Your task to perform on an android device: View the shopping cart on bestbuy. Add "razer kraken" to the cart on bestbuy Image 0: 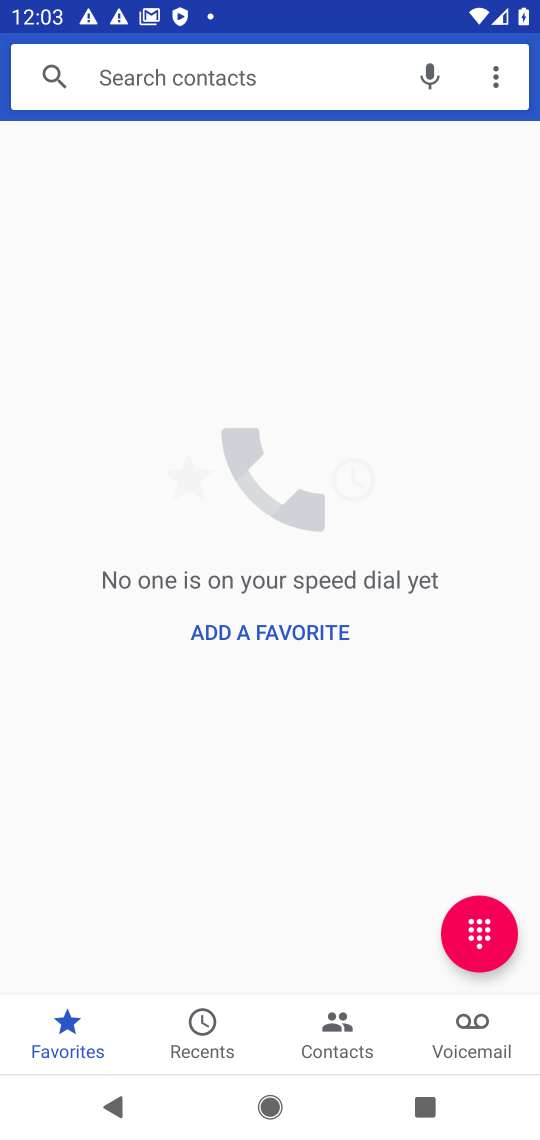
Step 0: press home button
Your task to perform on an android device: View the shopping cart on bestbuy. Add "razer kraken" to the cart on bestbuy Image 1: 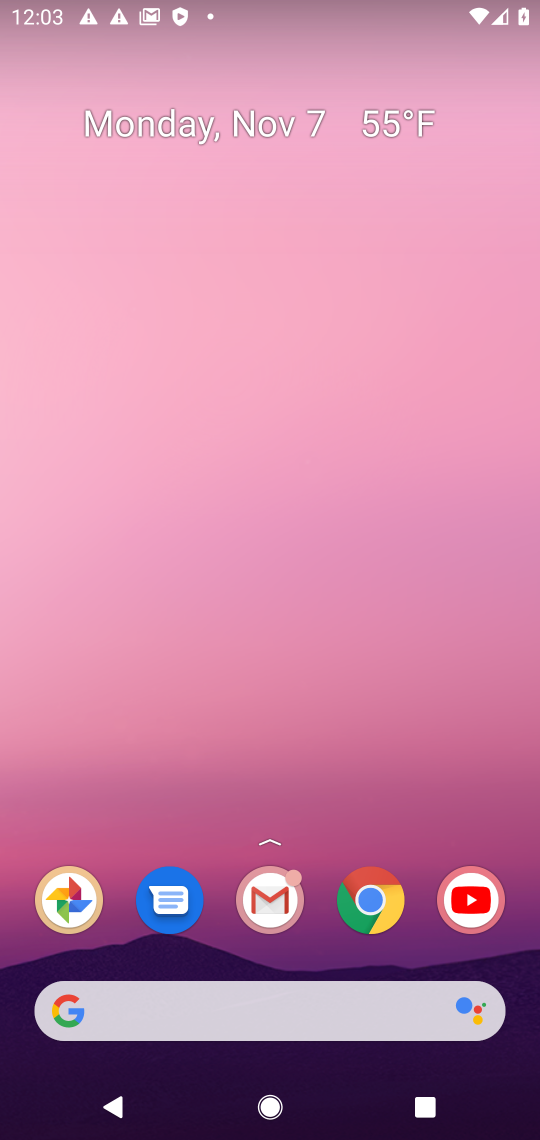
Step 1: click (174, 1011)
Your task to perform on an android device: View the shopping cart on bestbuy. Add "razer kraken" to the cart on bestbuy Image 2: 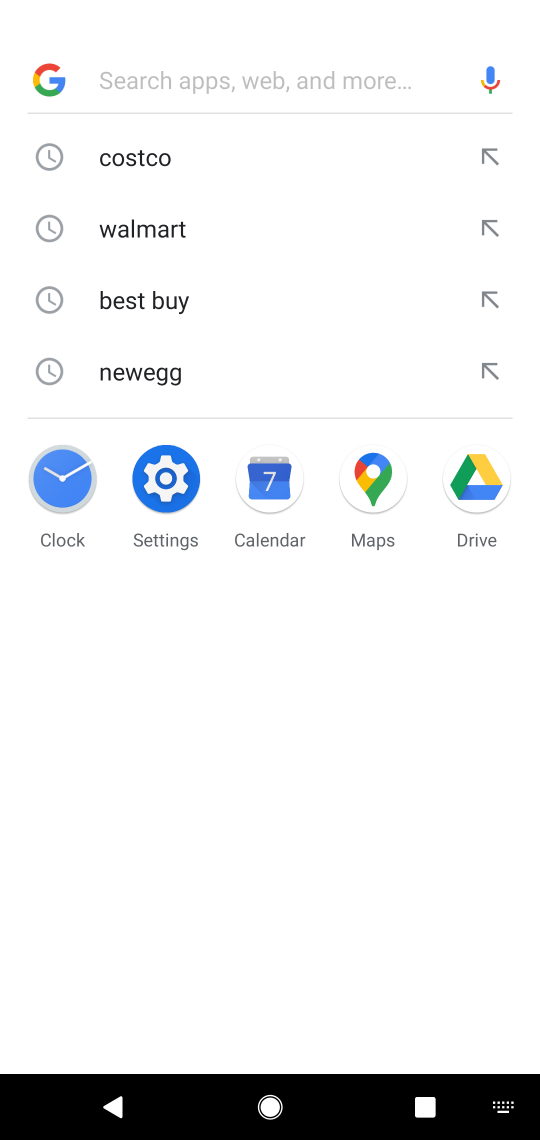
Step 2: click (387, 321)
Your task to perform on an android device: View the shopping cart on bestbuy. Add "razer kraken" to the cart on bestbuy Image 3: 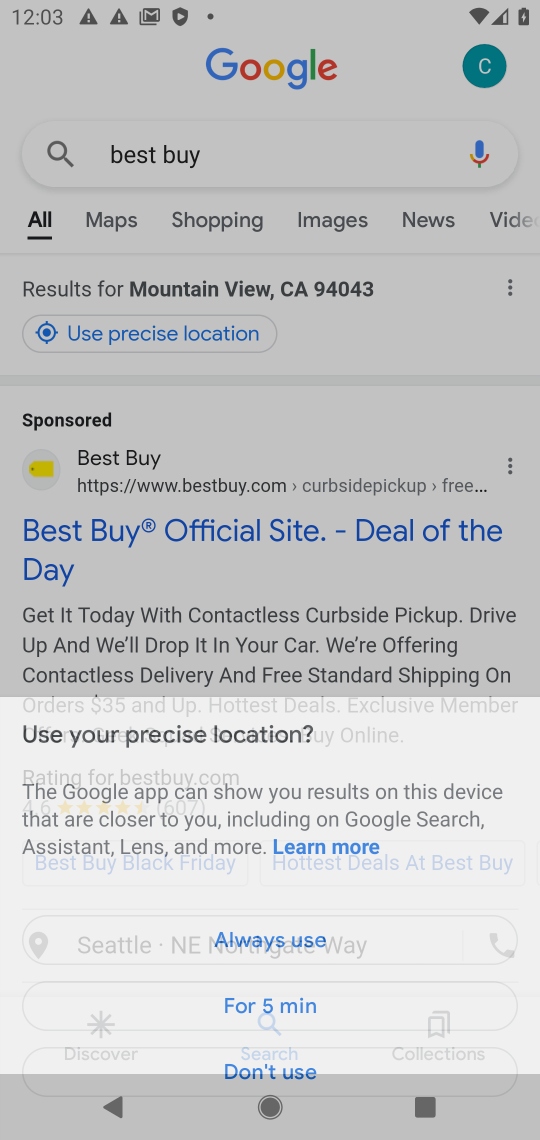
Step 3: click (92, 538)
Your task to perform on an android device: View the shopping cart on bestbuy. Add "razer kraken" to the cart on bestbuy Image 4: 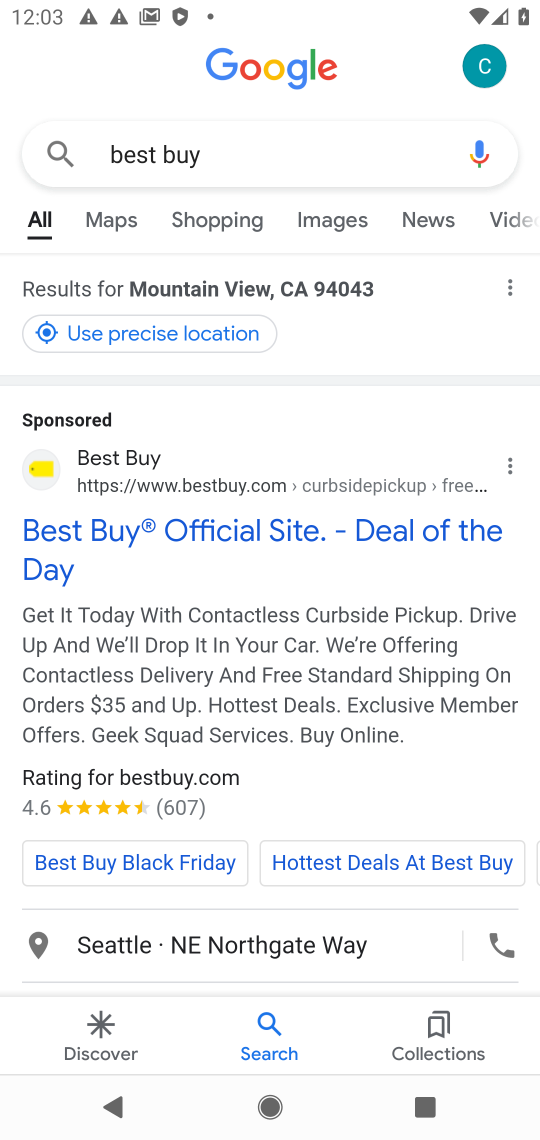
Step 4: click (126, 533)
Your task to perform on an android device: View the shopping cart on bestbuy. Add "razer kraken" to the cart on bestbuy Image 5: 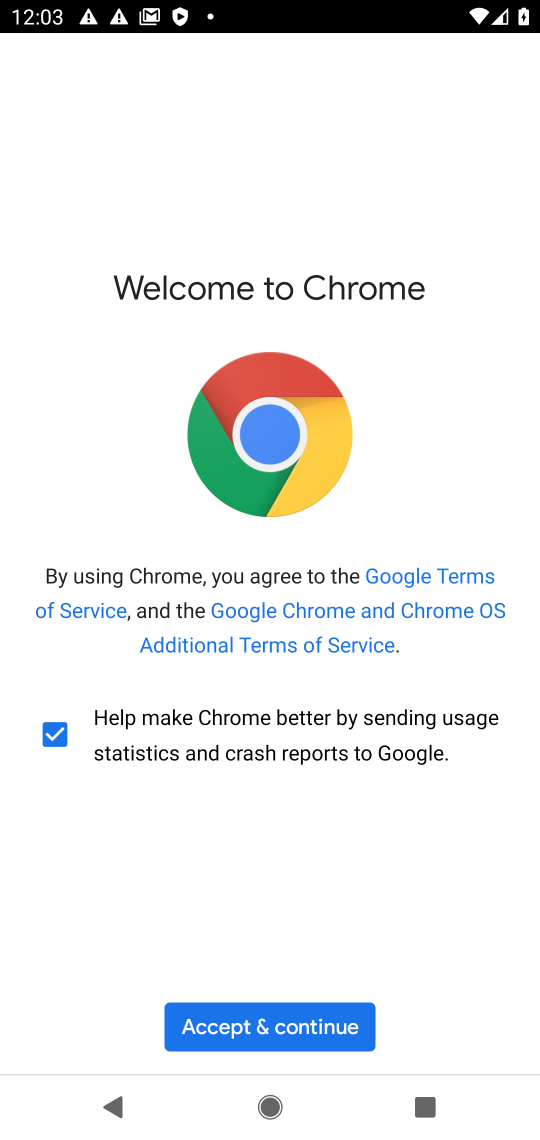
Step 5: click (274, 1014)
Your task to perform on an android device: View the shopping cart on bestbuy. Add "razer kraken" to the cart on bestbuy Image 6: 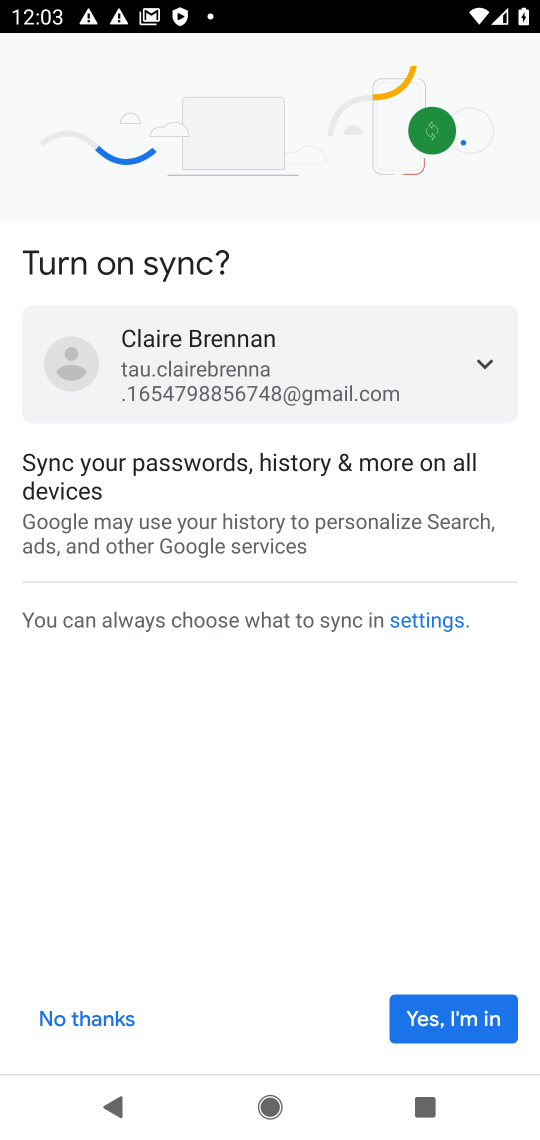
Step 6: click (479, 1044)
Your task to perform on an android device: View the shopping cart on bestbuy. Add "razer kraken" to the cart on bestbuy Image 7: 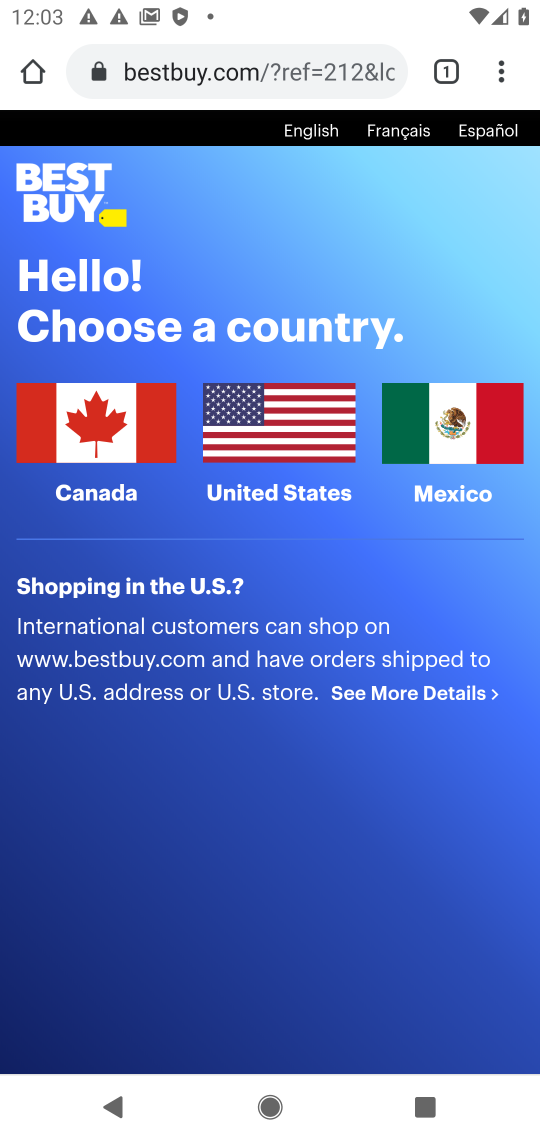
Step 7: click (128, 578)
Your task to perform on an android device: View the shopping cart on bestbuy. Add "razer kraken" to the cart on bestbuy Image 8: 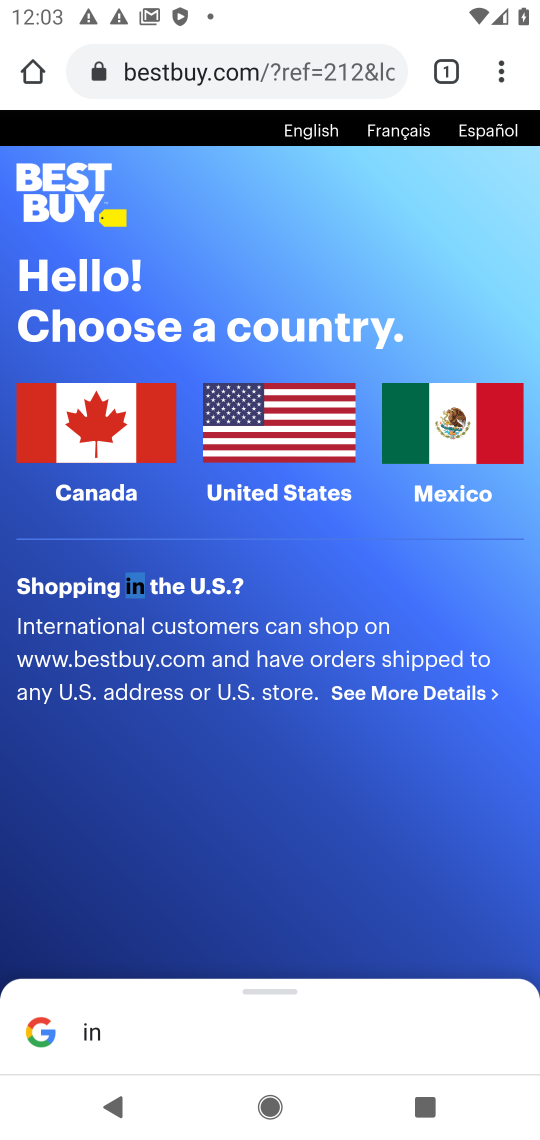
Step 8: click (84, 435)
Your task to perform on an android device: View the shopping cart on bestbuy. Add "razer kraken" to the cart on bestbuy Image 9: 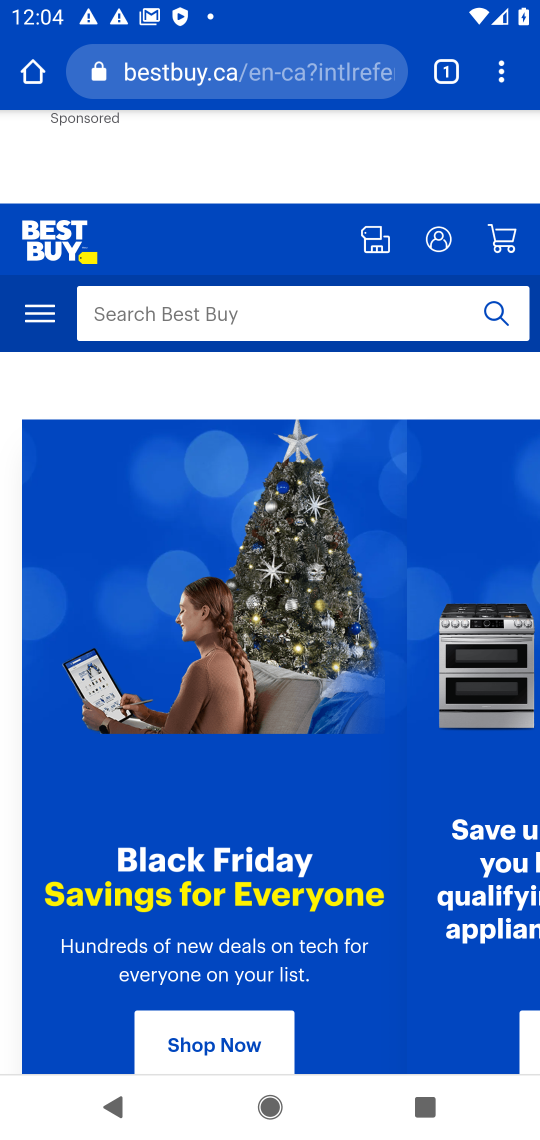
Step 9: click (238, 331)
Your task to perform on an android device: View the shopping cart on bestbuy. Add "razer kraken" to the cart on bestbuy Image 10: 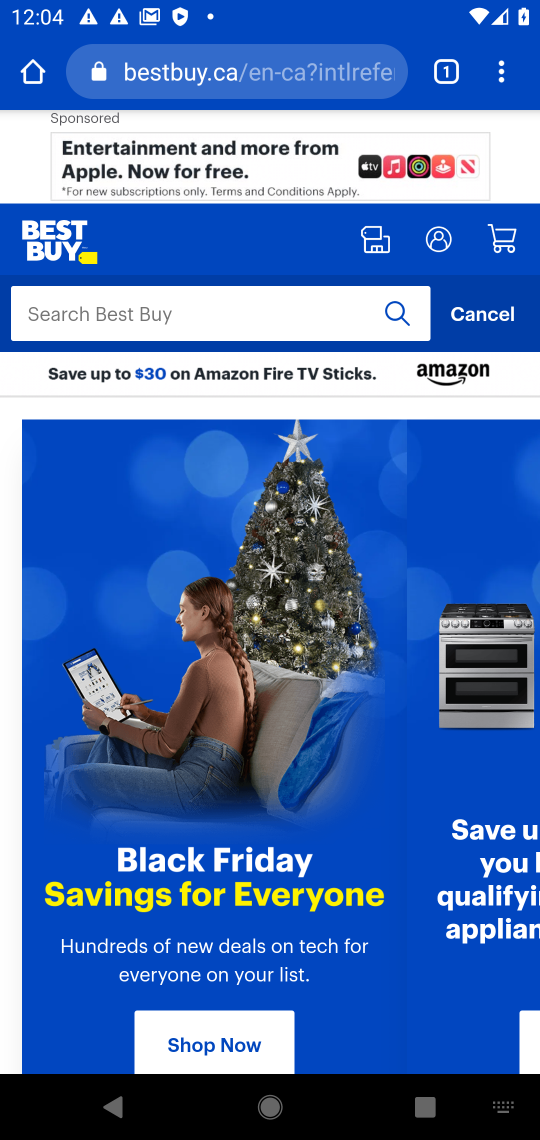
Step 10: type "razer kraken"
Your task to perform on an android device: View the shopping cart on bestbuy. Add "razer kraken" to the cart on bestbuy Image 11: 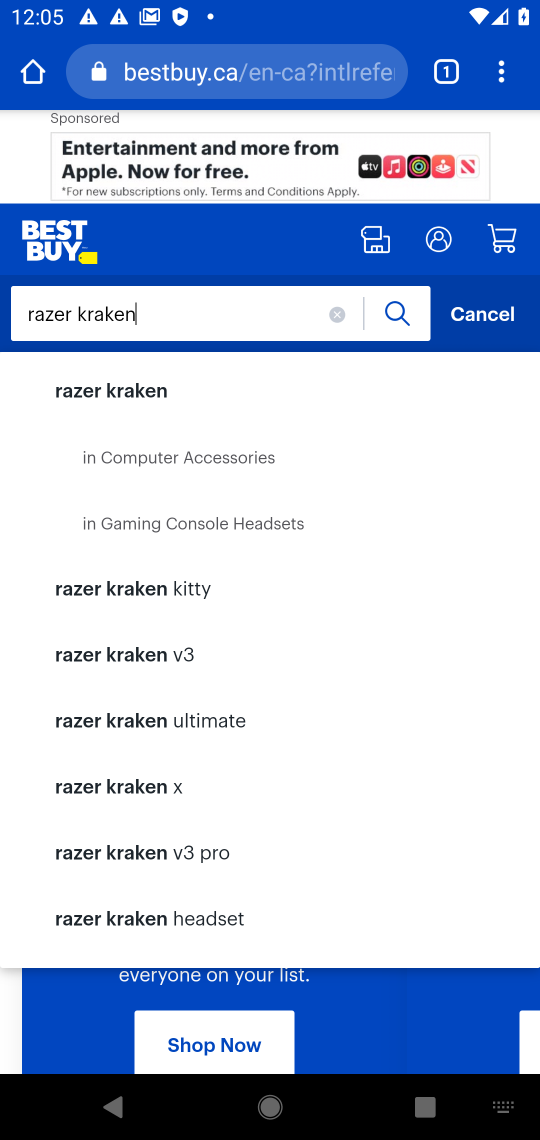
Step 11: task complete